Your task to perform on an android device: uninstall "Cash App" Image 0: 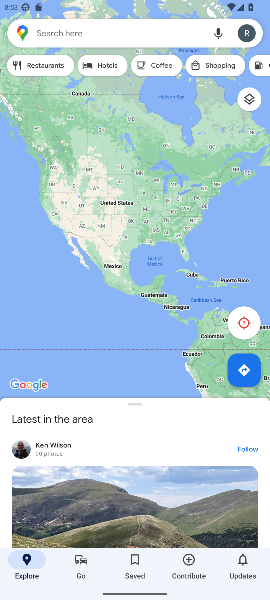
Step 0: press home button
Your task to perform on an android device: uninstall "Cash App" Image 1: 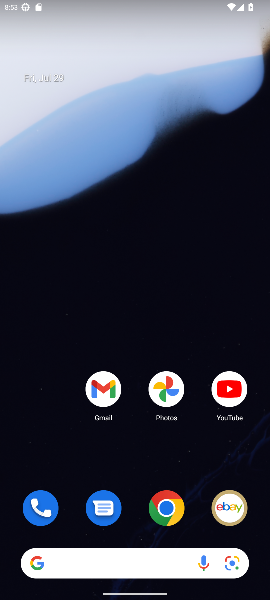
Step 1: drag from (156, 507) to (190, 115)
Your task to perform on an android device: uninstall "Cash App" Image 2: 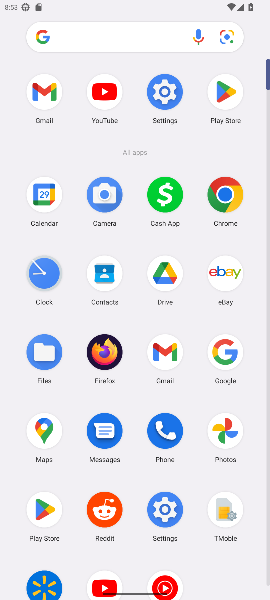
Step 2: click (227, 97)
Your task to perform on an android device: uninstall "Cash App" Image 3: 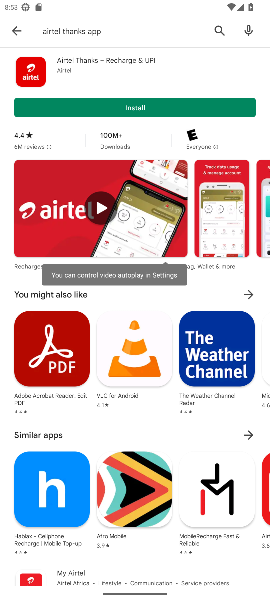
Step 3: click (219, 26)
Your task to perform on an android device: uninstall "Cash App" Image 4: 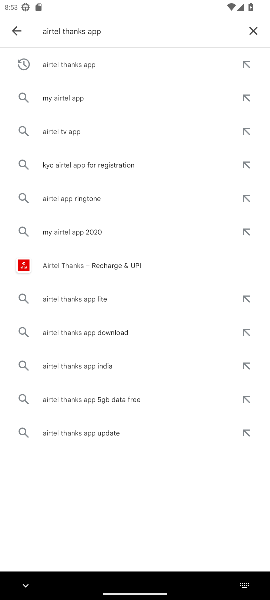
Step 4: click (250, 26)
Your task to perform on an android device: uninstall "Cash App" Image 5: 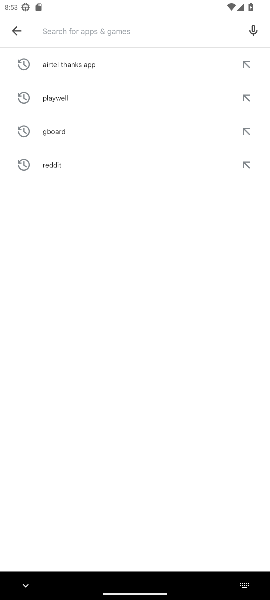
Step 5: type "cashapp"
Your task to perform on an android device: uninstall "Cash App" Image 6: 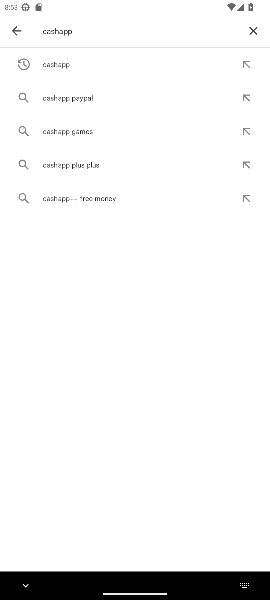
Step 6: click (71, 62)
Your task to perform on an android device: uninstall "Cash App" Image 7: 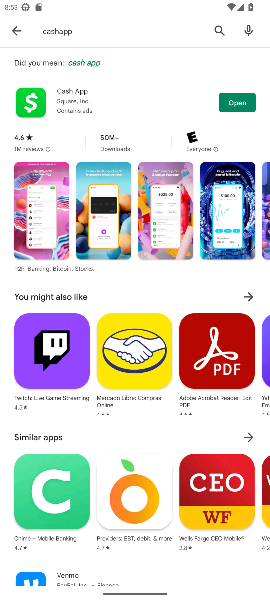
Step 7: task complete